Your task to perform on an android device: turn vacation reply on in the gmail app Image 0: 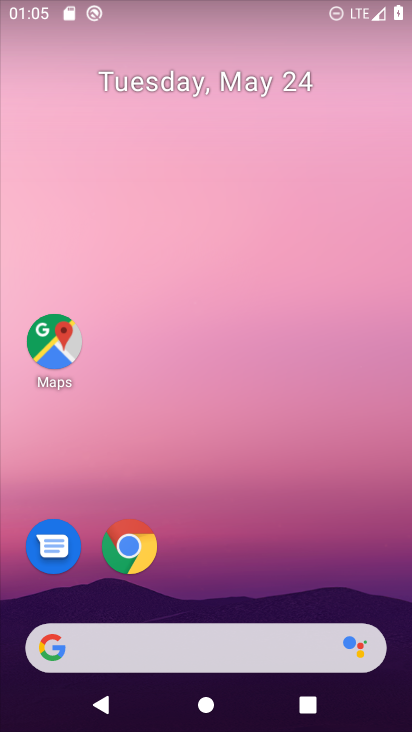
Step 0: drag from (324, 643) to (324, 26)
Your task to perform on an android device: turn vacation reply on in the gmail app Image 1: 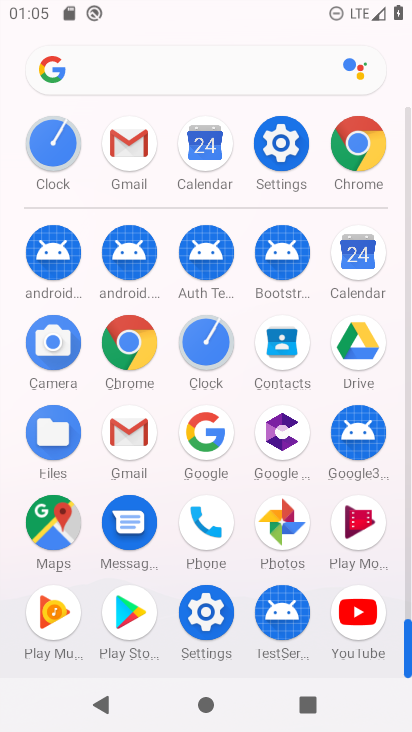
Step 1: click (130, 433)
Your task to perform on an android device: turn vacation reply on in the gmail app Image 2: 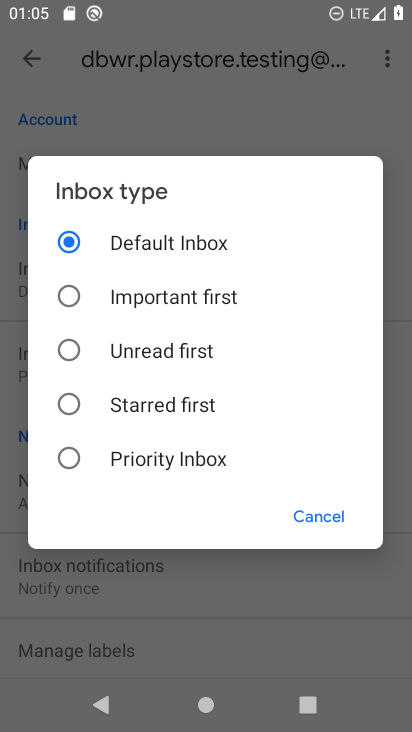
Step 2: press back button
Your task to perform on an android device: turn vacation reply on in the gmail app Image 3: 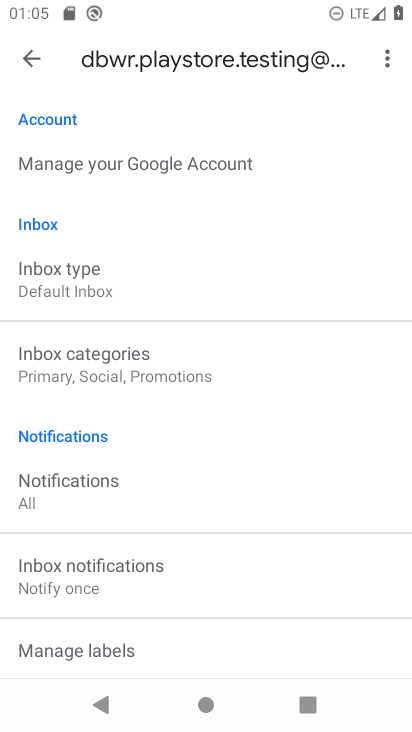
Step 3: drag from (217, 626) to (319, 37)
Your task to perform on an android device: turn vacation reply on in the gmail app Image 4: 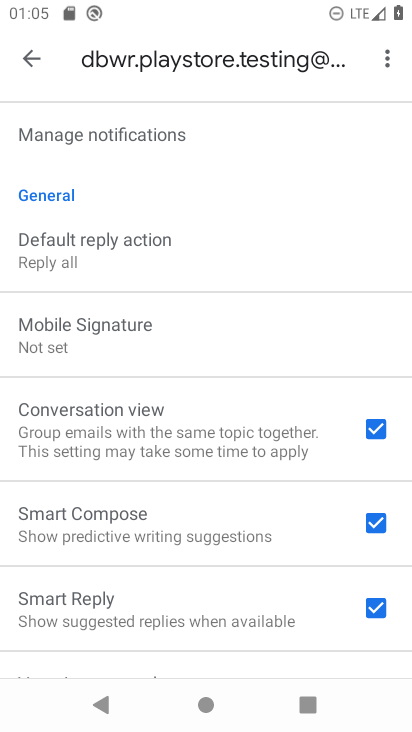
Step 4: drag from (300, 580) to (322, 129)
Your task to perform on an android device: turn vacation reply on in the gmail app Image 5: 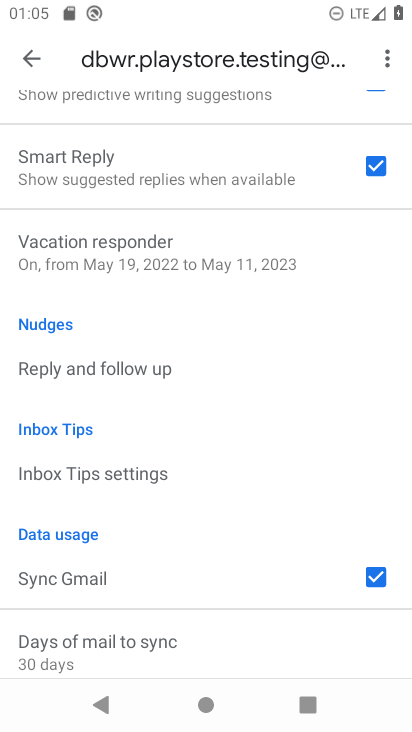
Step 5: click (146, 531)
Your task to perform on an android device: turn vacation reply on in the gmail app Image 6: 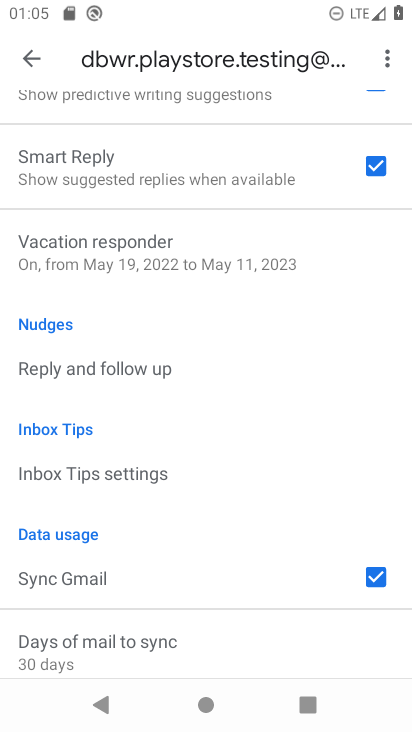
Step 6: click (225, 251)
Your task to perform on an android device: turn vacation reply on in the gmail app Image 7: 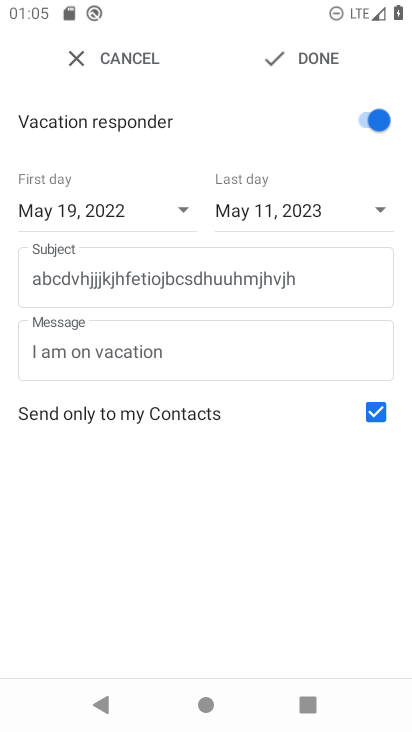
Step 7: click (315, 52)
Your task to perform on an android device: turn vacation reply on in the gmail app Image 8: 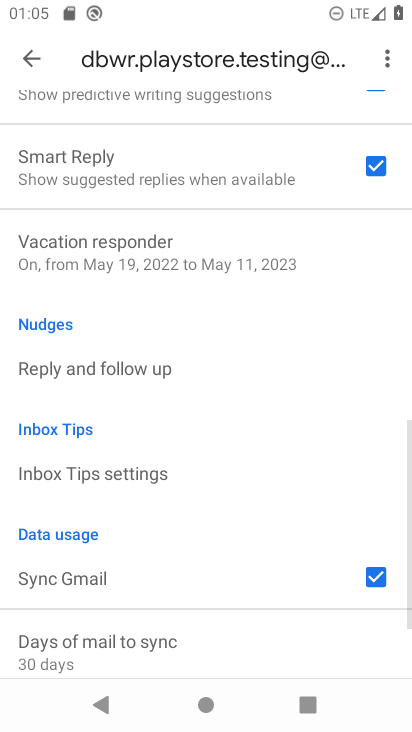
Step 8: task complete